Your task to perform on an android device: check storage Image 0: 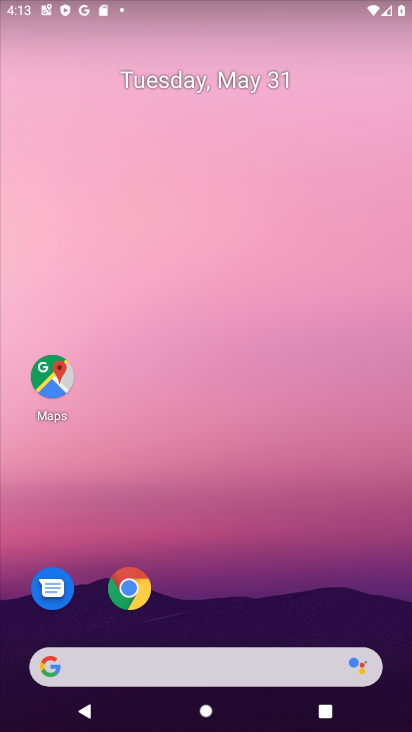
Step 0: drag from (225, 633) to (232, 202)
Your task to perform on an android device: check storage Image 1: 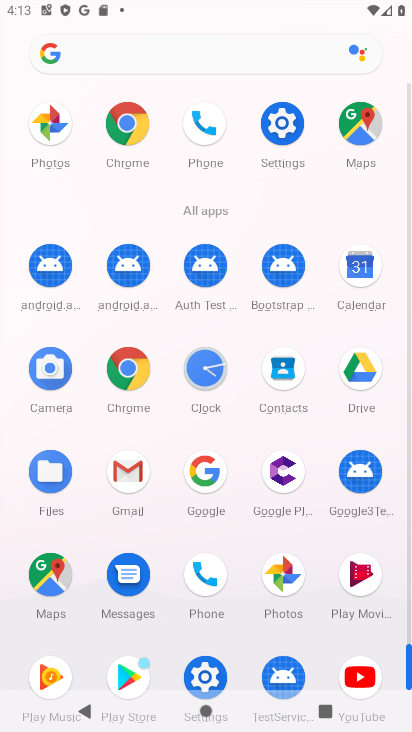
Step 1: click (277, 117)
Your task to perform on an android device: check storage Image 2: 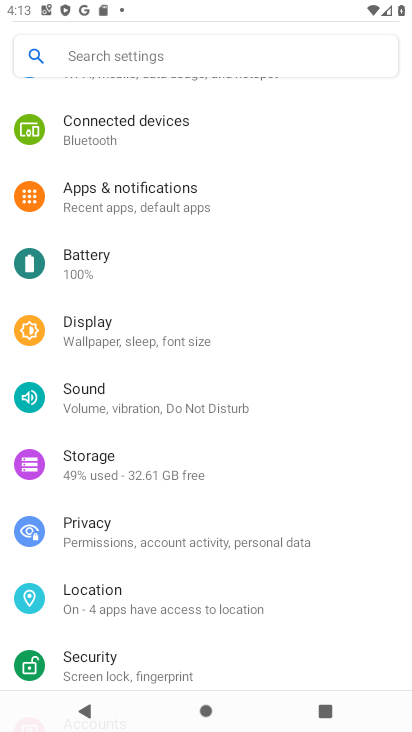
Step 2: click (125, 468)
Your task to perform on an android device: check storage Image 3: 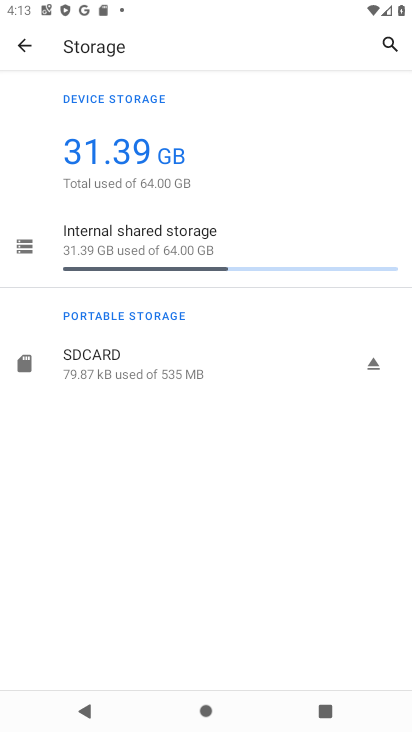
Step 3: task complete